Your task to perform on an android device: See recent photos Image 0: 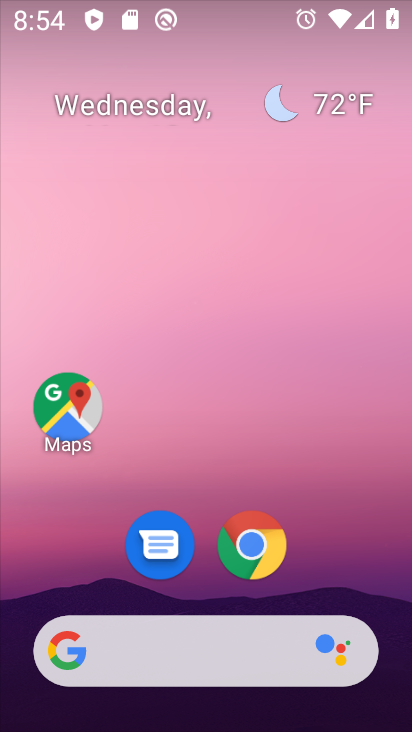
Step 0: drag from (304, 529) to (186, 146)
Your task to perform on an android device: See recent photos Image 1: 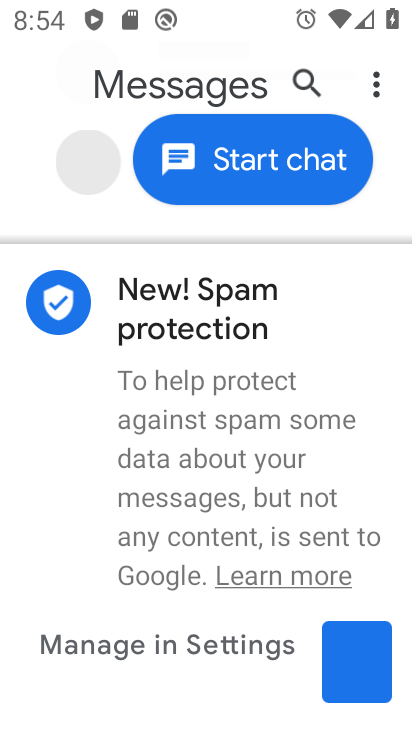
Step 1: press back button
Your task to perform on an android device: See recent photos Image 2: 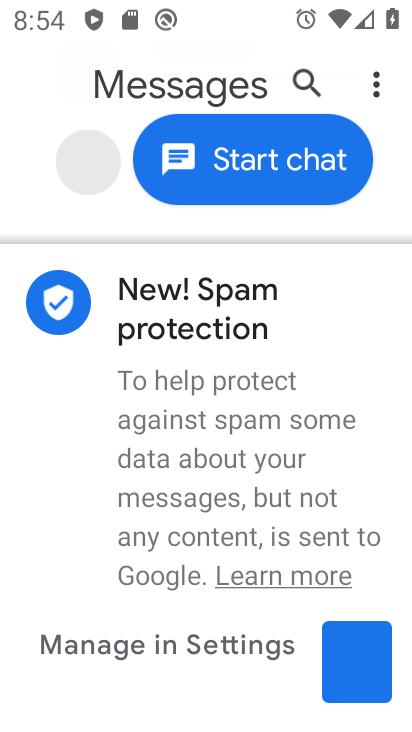
Step 2: press back button
Your task to perform on an android device: See recent photos Image 3: 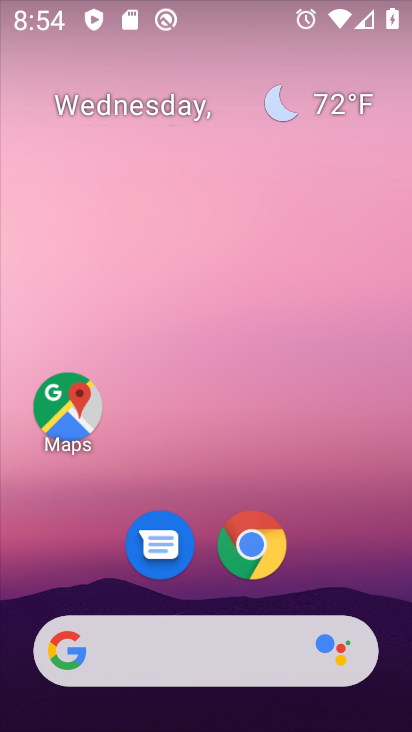
Step 3: drag from (338, 630) to (135, 68)
Your task to perform on an android device: See recent photos Image 4: 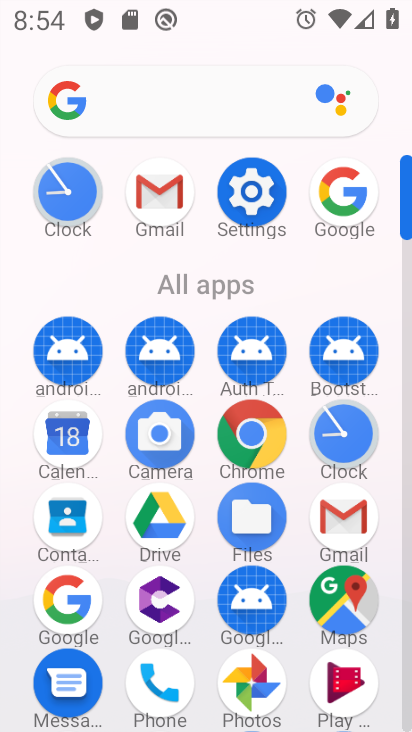
Step 4: click (361, 591)
Your task to perform on an android device: See recent photos Image 5: 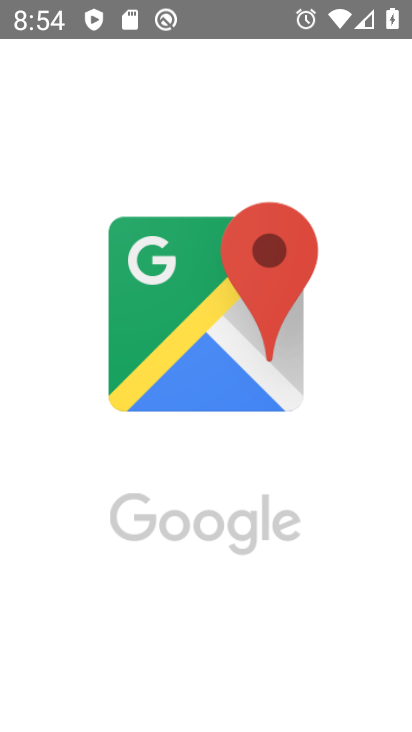
Step 5: press back button
Your task to perform on an android device: See recent photos Image 6: 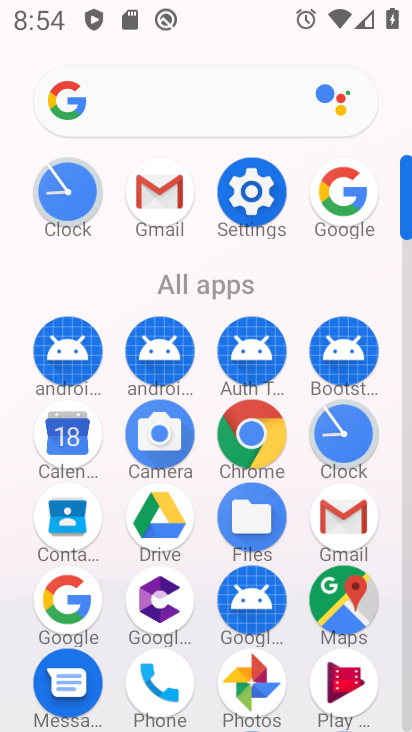
Step 6: click (269, 667)
Your task to perform on an android device: See recent photos Image 7: 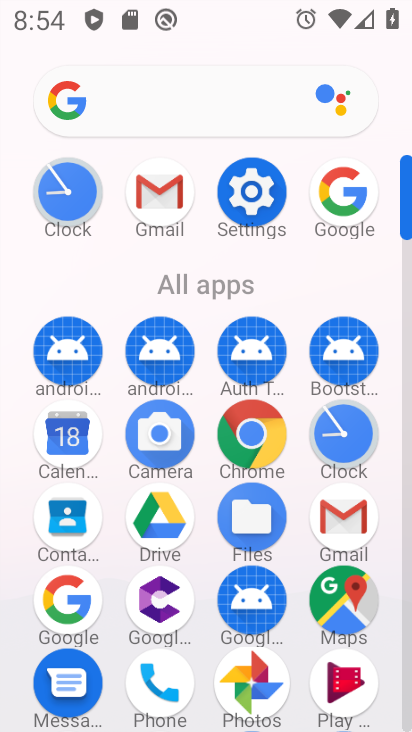
Step 7: click (246, 676)
Your task to perform on an android device: See recent photos Image 8: 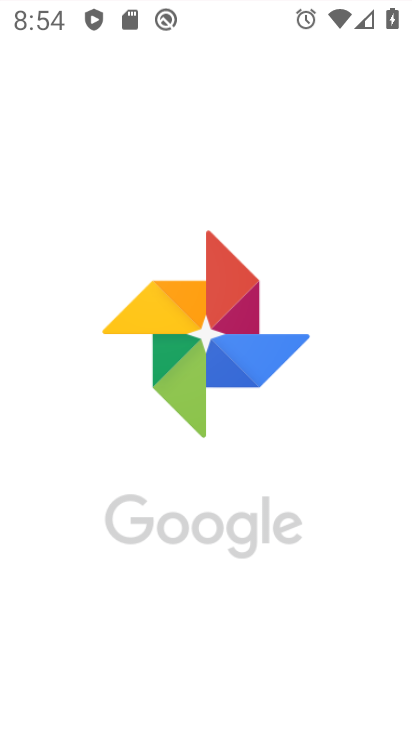
Step 8: click (245, 675)
Your task to perform on an android device: See recent photos Image 9: 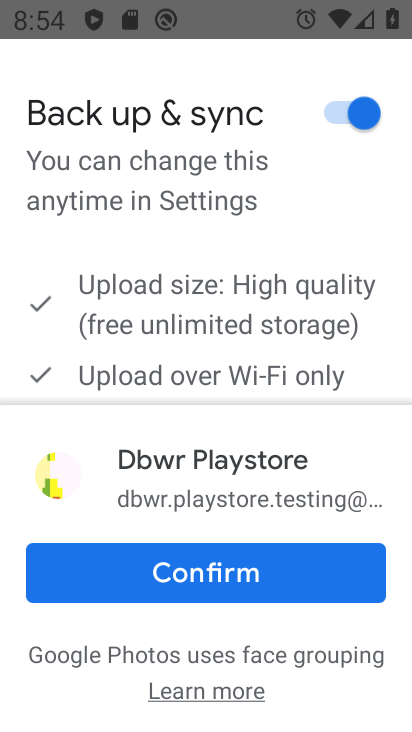
Step 9: click (227, 574)
Your task to perform on an android device: See recent photos Image 10: 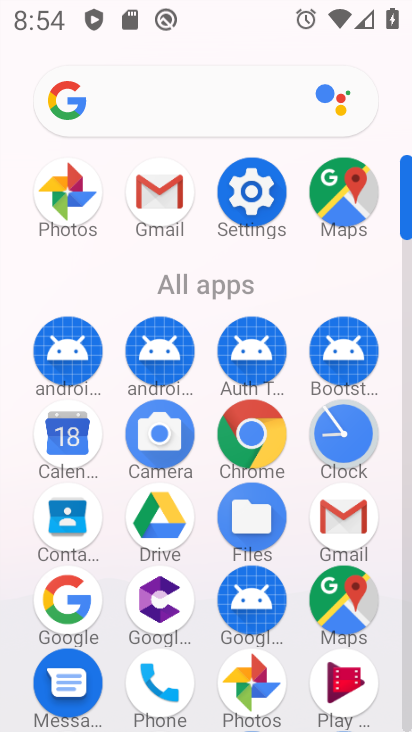
Step 10: click (66, 190)
Your task to perform on an android device: See recent photos Image 11: 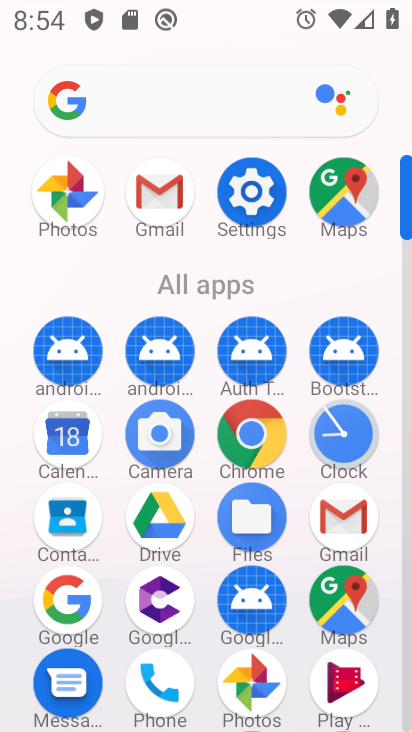
Step 11: click (72, 189)
Your task to perform on an android device: See recent photos Image 12: 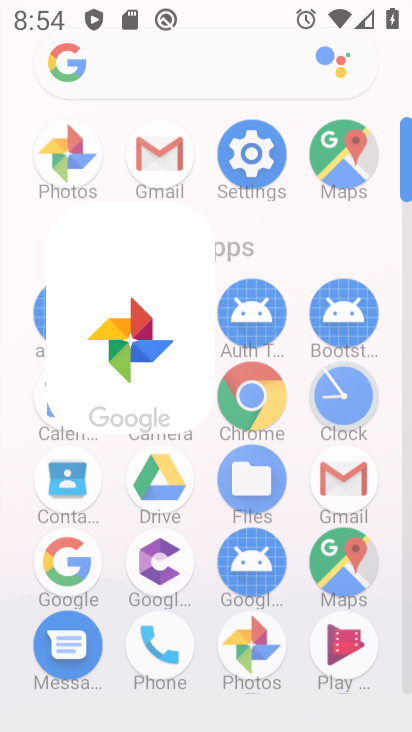
Step 12: click (72, 189)
Your task to perform on an android device: See recent photos Image 13: 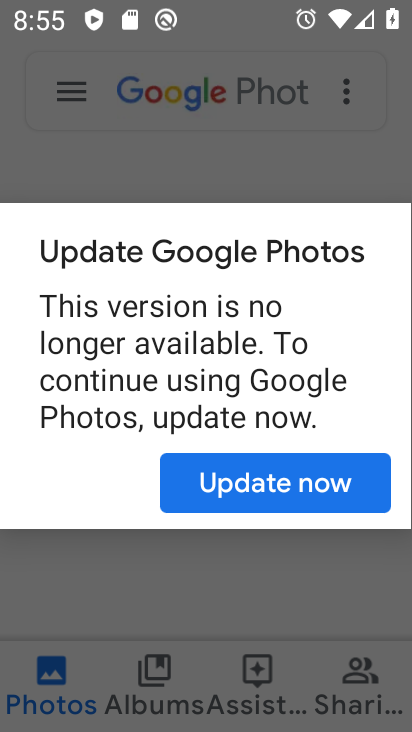
Step 13: click (288, 479)
Your task to perform on an android device: See recent photos Image 14: 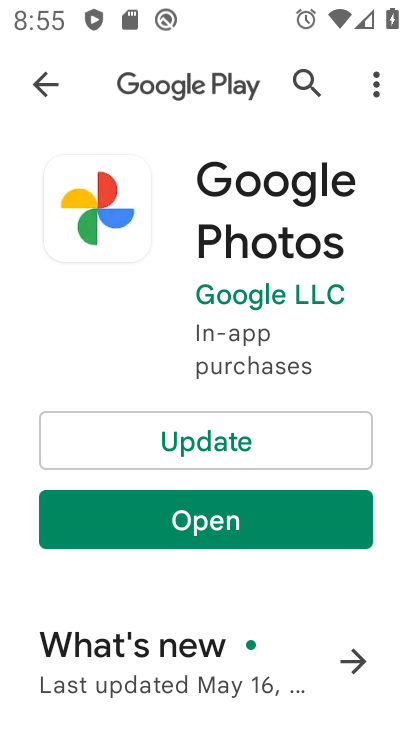
Step 14: click (206, 443)
Your task to perform on an android device: See recent photos Image 15: 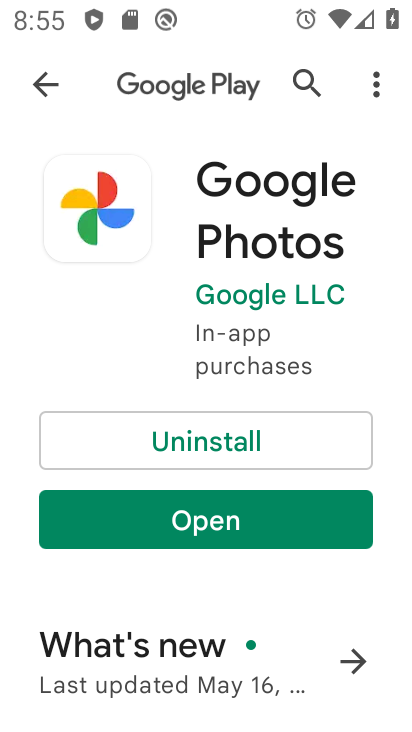
Step 15: click (204, 509)
Your task to perform on an android device: See recent photos Image 16: 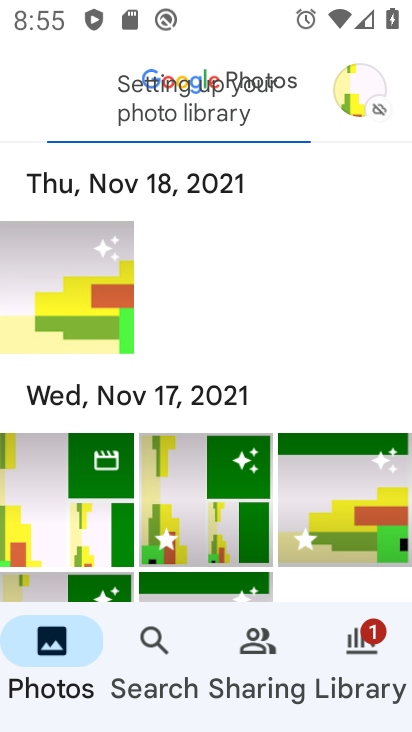
Step 16: task complete